Your task to perform on an android device: Open Yahoo.com Image 0: 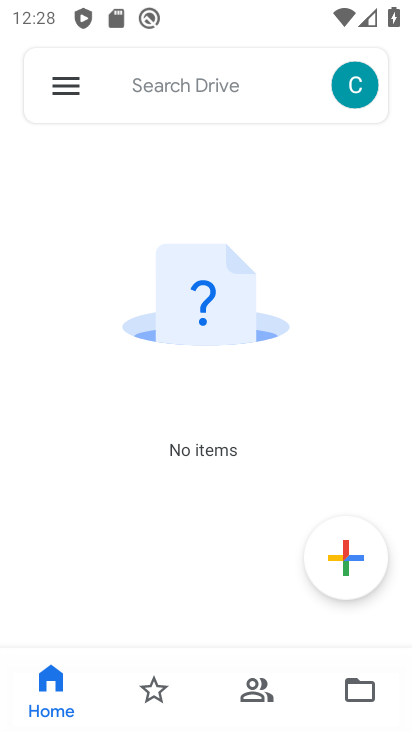
Step 0: press back button
Your task to perform on an android device: Open Yahoo.com Image 1: 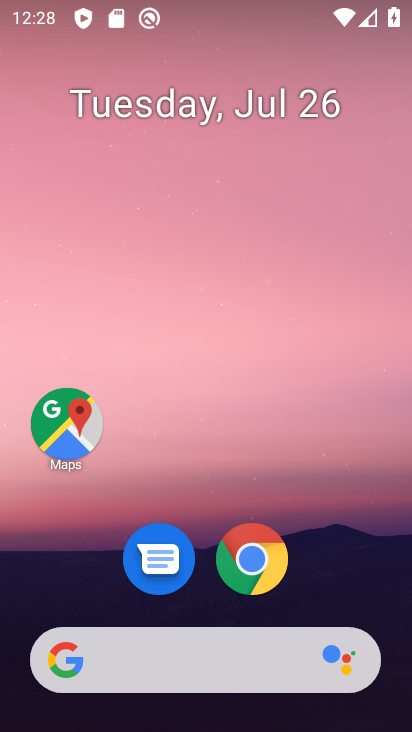
Step 1: click (253, 560)
Your task to perform on an android device: Open Yahoo.com Image 2: 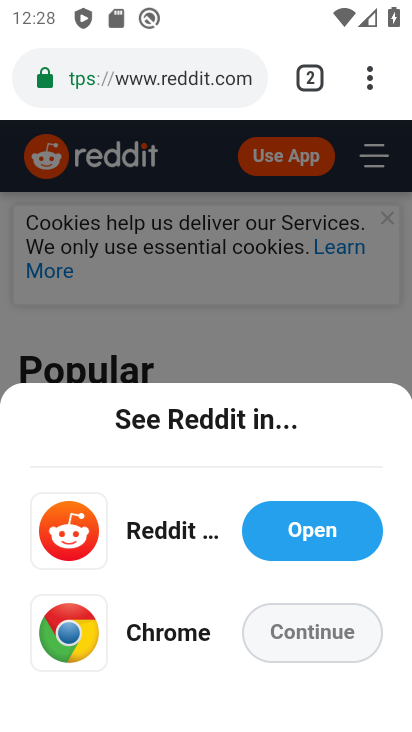
Step 2: click (316, 78)
Your task to perform on an android device: Open Yahoo.com Image 3: 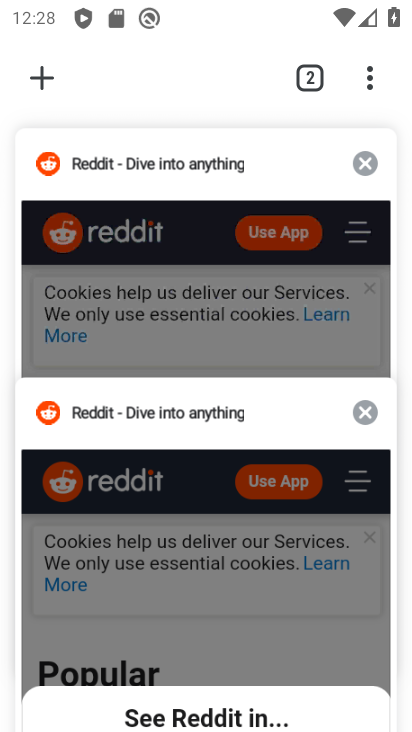
Step 3: click (43, 81)
Your task to perform on an android device: Open Yahoo.com Image 4: 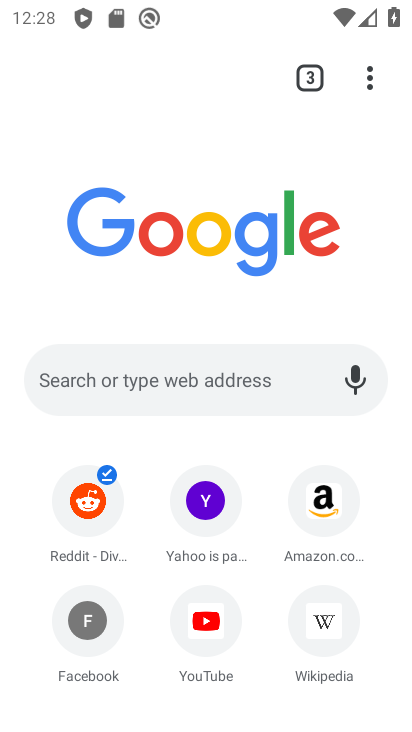
Step 4: click (204, 483)
Your task to perform on an android device: Open Yahoo.com Image 5: 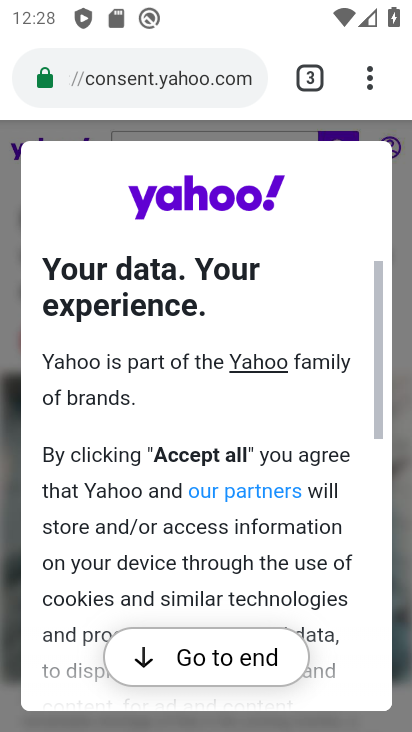
Step 5: task complete